Your task to perform on an android device: Go to wifi settings Image 0: 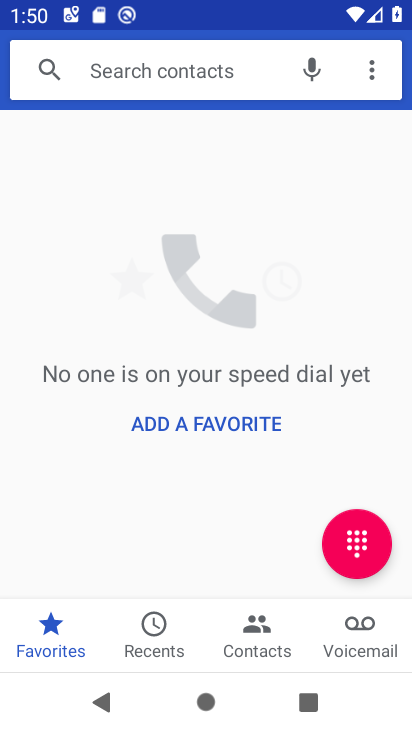
Step 0: press home button
Your task to perform on an android device: Go to wifi settings Image 1: 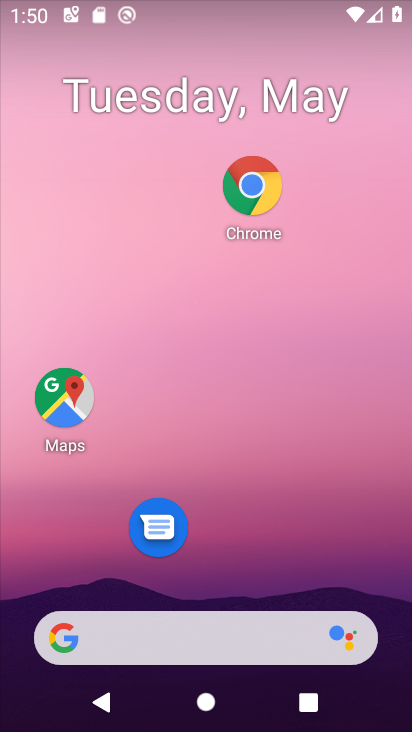
Step 1: drag from (243, 518) to (133, 16)
Your task to perform on an android device: Go to wifi settings Image 2: 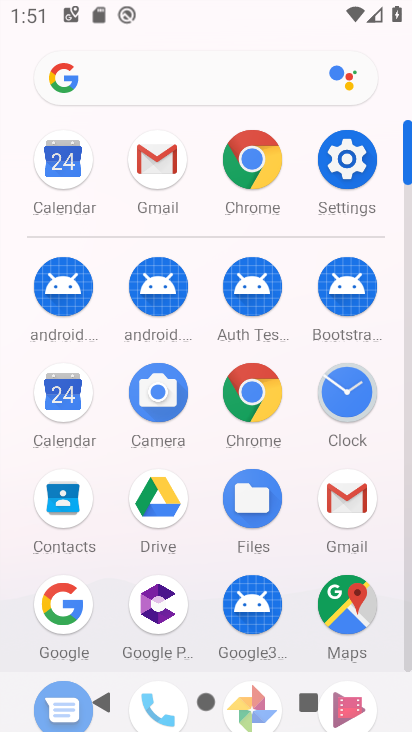
Step 2: click (344, 150)
Your task to perform on an android device: Go to wifi settings Image 3: 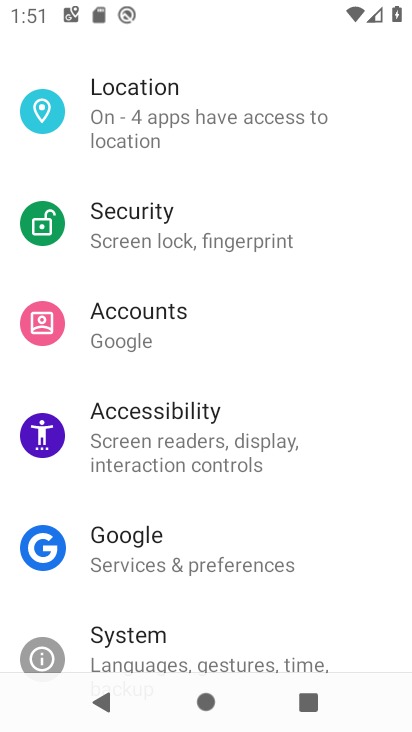
Step 3: drag from (220, 172) to (292, 665)
Your task to perform on an android device: Go to wifi settings Image 4: 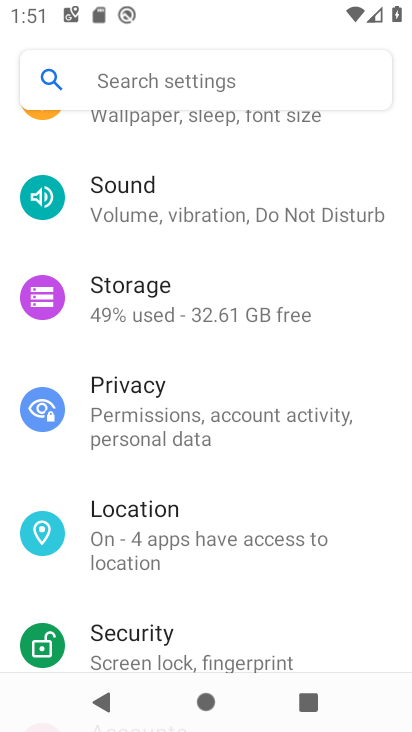
Step 4: drag from (218, 161) to (255, 527)
Your task to perform on an android device: Go to wifi settings Image 5: 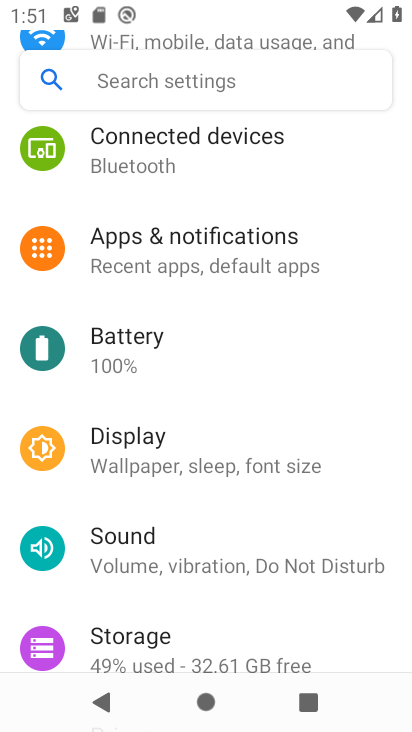
Step 5: drag from (244, 164) to (324, 717)
Your task to perform on an android device: Go to wifi settings Image 6: 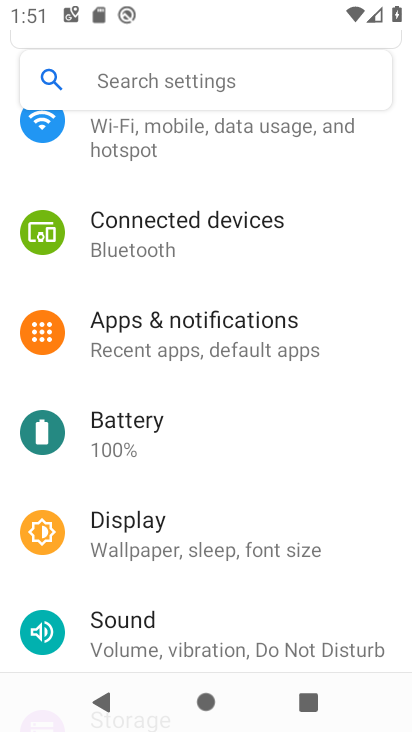
Step 6: drag from (289, 284) to (233, 699)
Your task to perform on an android device: Go to wifi settings Image 7: 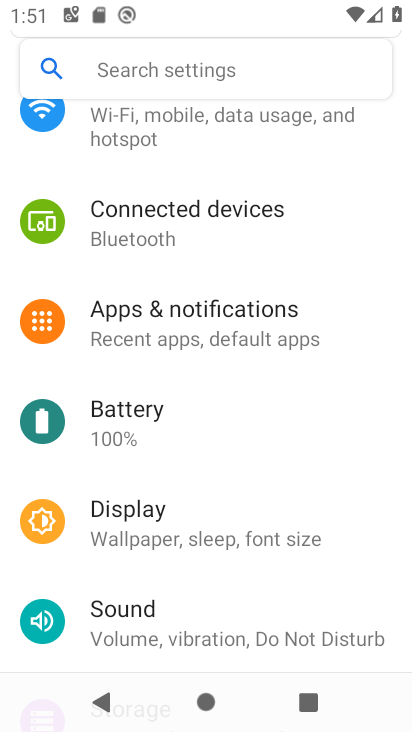
Step 7: click (151, 120)
Your task to perform on an android device: Go to wifi settings Image 8: 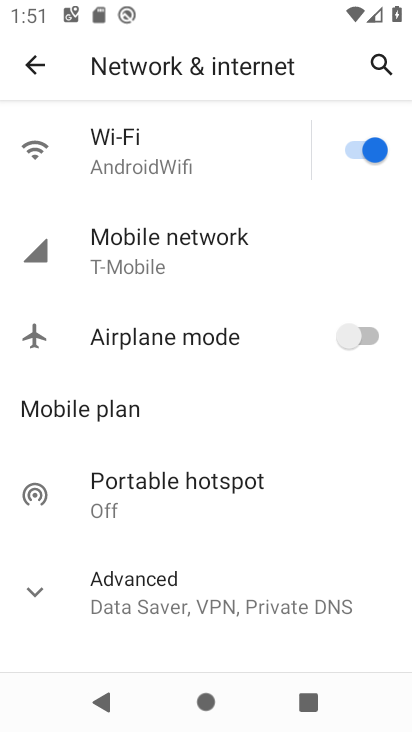
Step 8: click (141, 130)
Your task to perform on an android device: Go to wifi settings Image 9: 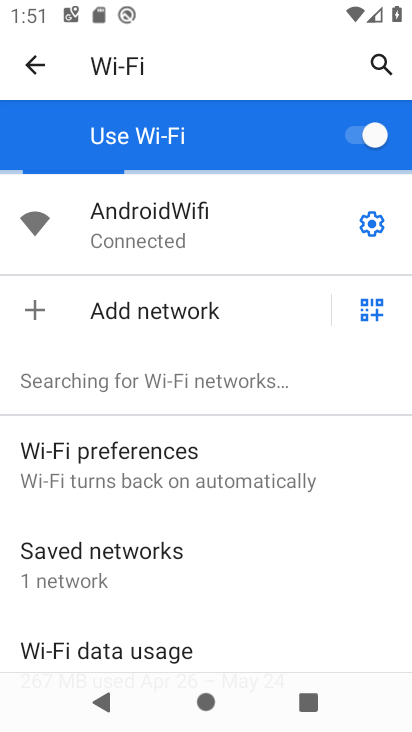
Step 9: task complete